Your task to perform on an android device: toggle notification dots Image 0: 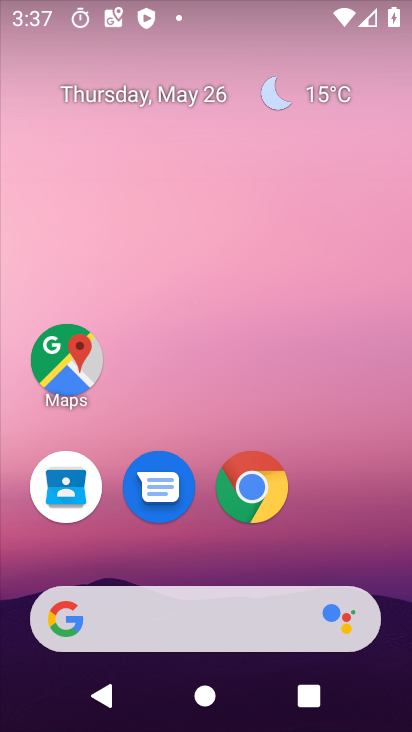
Step 0: drag from (181, 558) to (192, 232)
Your task to perform on an android device: toggle notification dots Image 1: 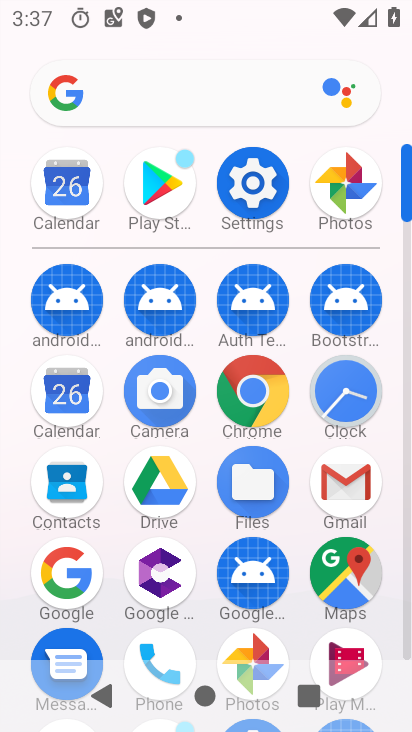
Step 1: click (244, 210)
Your task to perform on an android device: toggle notification dots Image 2: 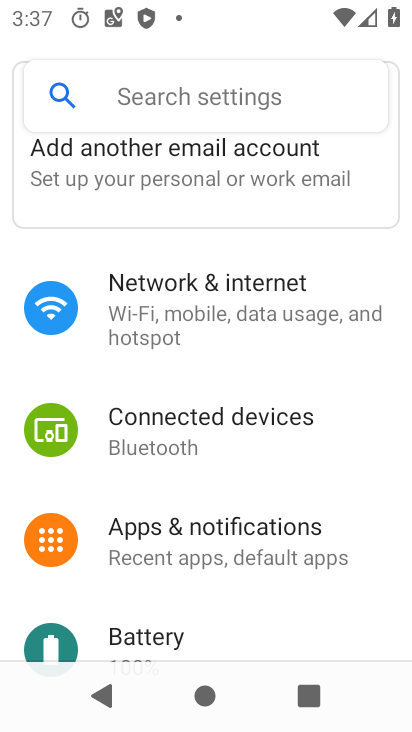
Step 2: click (244, 541)
Your task to perform on an android device: toggle notification dots Image 3: 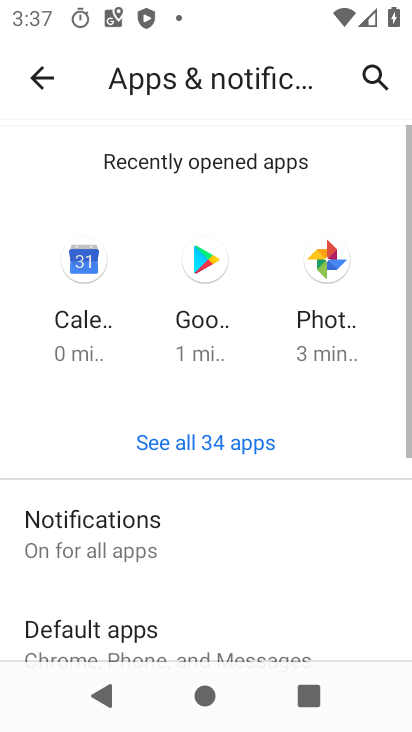
Step 3: click (104, 539)
Your task to perform on an android device: toggle notification dots Image 4: 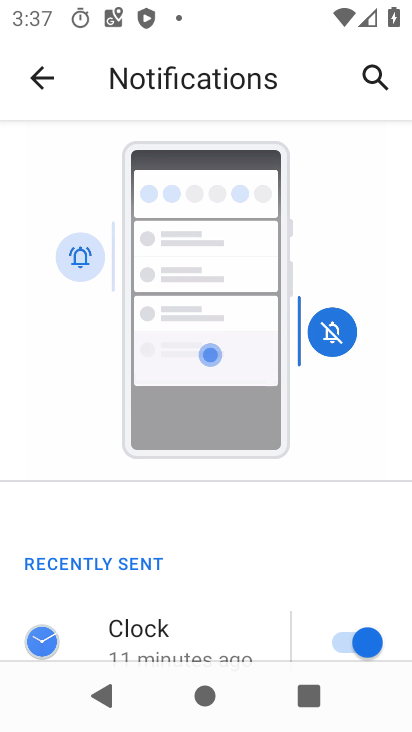
Step 4: drag from (224, 532) to (233, 270)
Your task to perform on an android device: toggle notification dots Image 5: 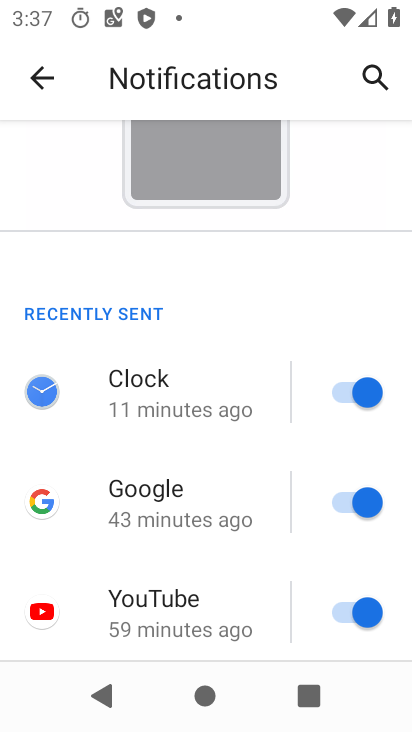
Step 5: drag from (163, 549) to (205, 232)
Your task to perform on an android device: toggle notification dots Image 6: 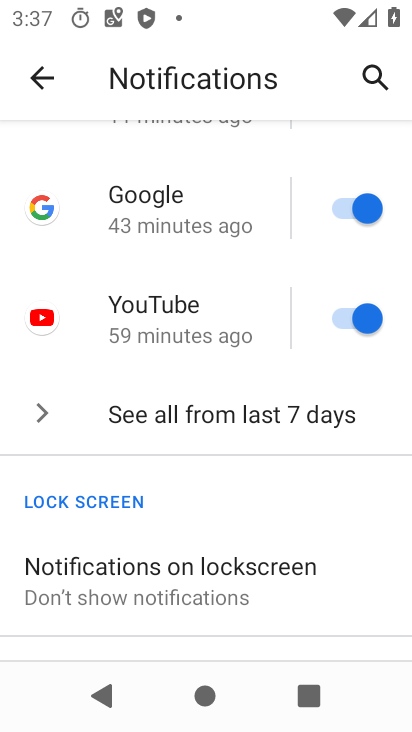
Step 6: drag from (251, 551) to (252, 297)
Your task to perform on an android device: toggle notification dots Image 7: 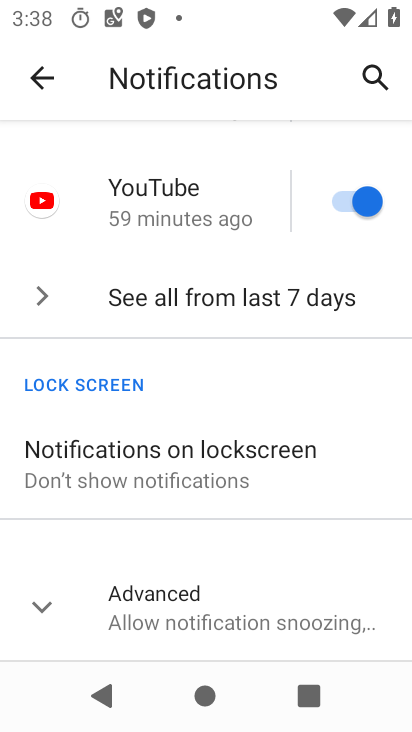
Step 7: click (241, 612)
Your task to perform on an android device: toggle notification dots Image 8: 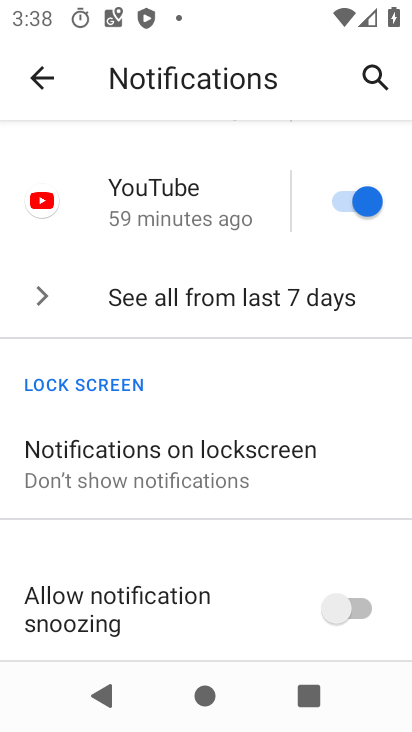
Step 8: drag from (225, 604) to (265, 408)
Your task to perform on an android device: toggle notification dots Image 9: 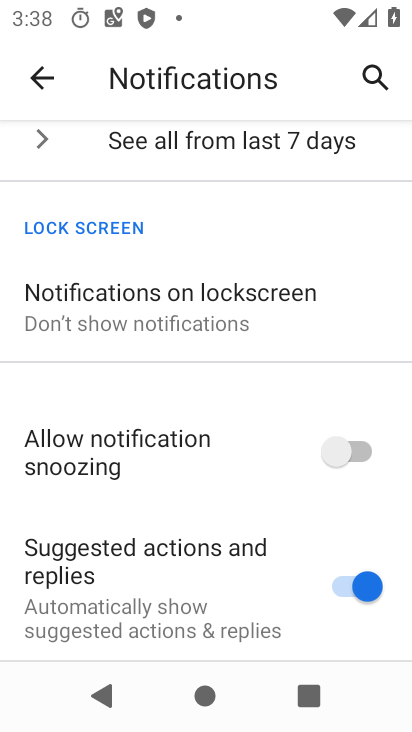
Step 9: drag from (249, 588) to (249, 341)
Your task to perform on an android device: toggle notification dots Image 10: 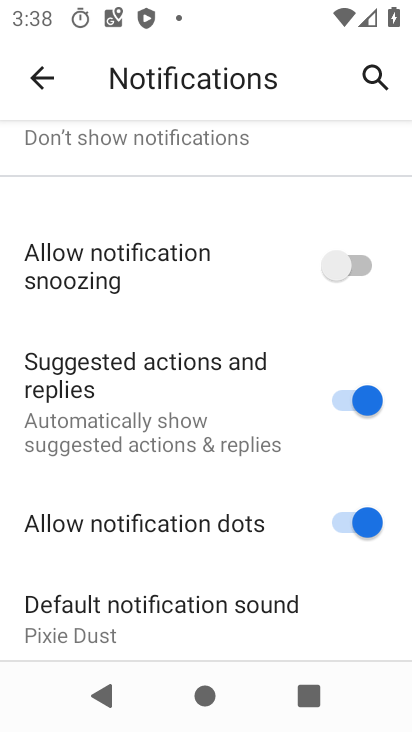
Step 10: click (335, 515)
Your task to perform on an android device: toggle notification dots Image 11: 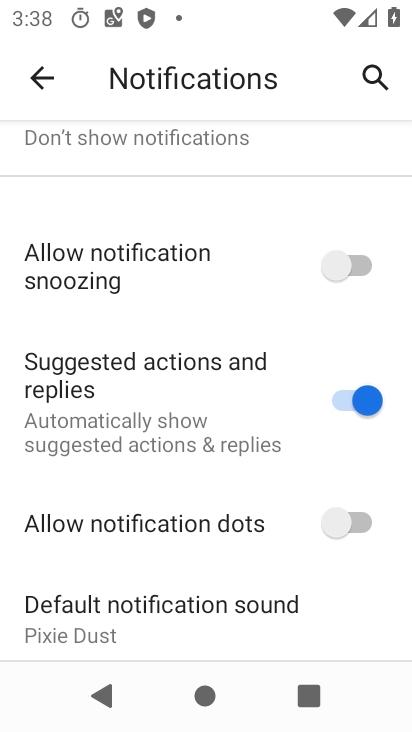
Step 11: task complete